Your task to perform on an android device: allow cookies in the chrome app Image 0: 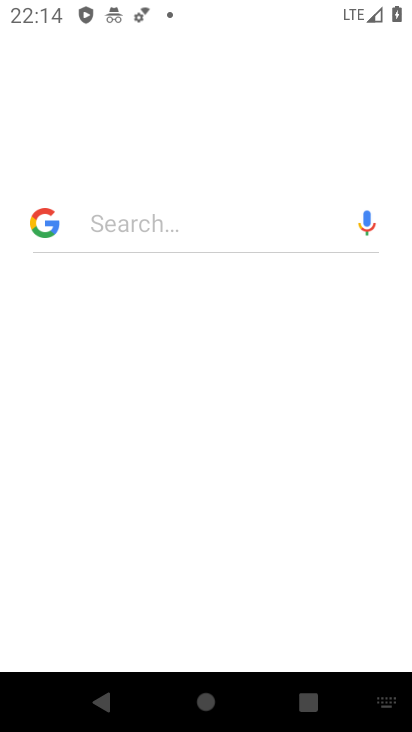
Step 0: drag from (250, 586) to (237, 80)
Your task to perform on an android device: allow cookies in the chrome app Image 1: 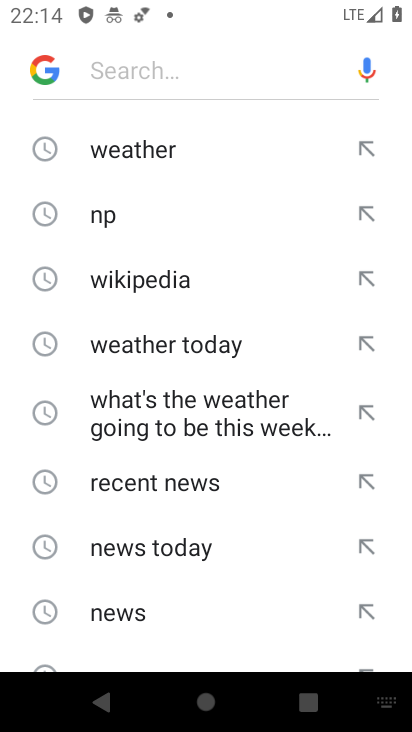
Step 1: press home button
Your task to perform on an android device: allow cookies in the chrome app Image 2: 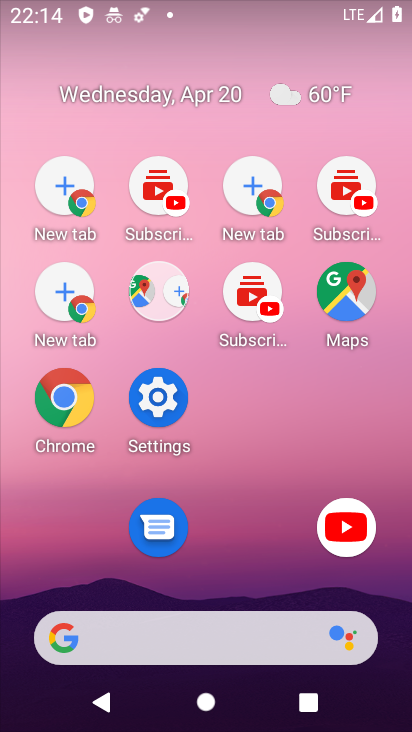
Step 2: drag from (211, 291) to (185, 155)
Your task to perform on an android device: allow cookies in the chrome app Image 3: 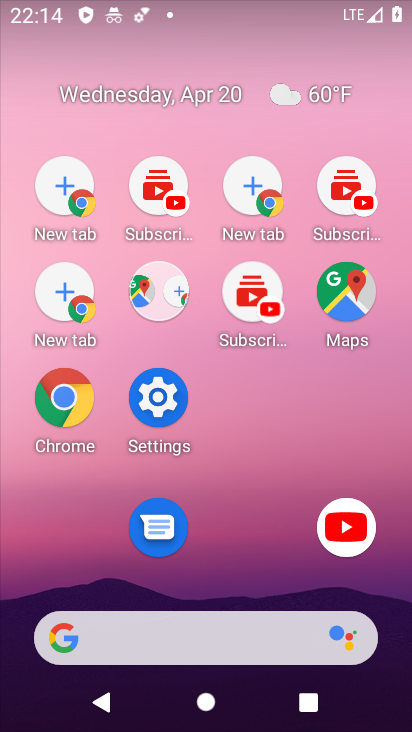
Step 3: drag from (265, 421) to (185, 118)
Your task to perform on an android device: allow cookies in the chrome app Image 4: 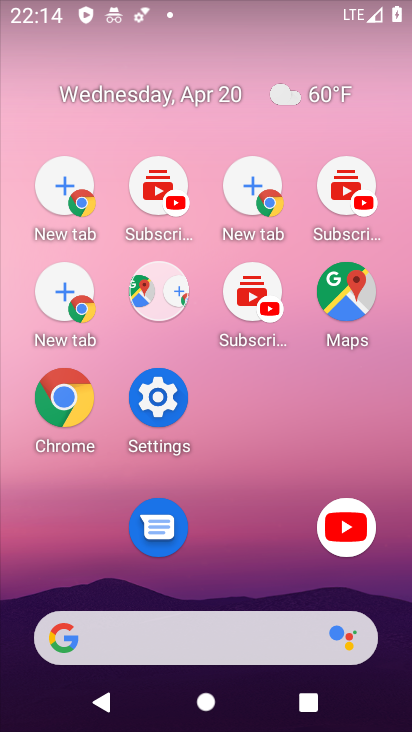
Step 4: drag from (235, 297) to (135, 15)
Your task to perform on an android device: allow cookies in the chrome app Image 5: 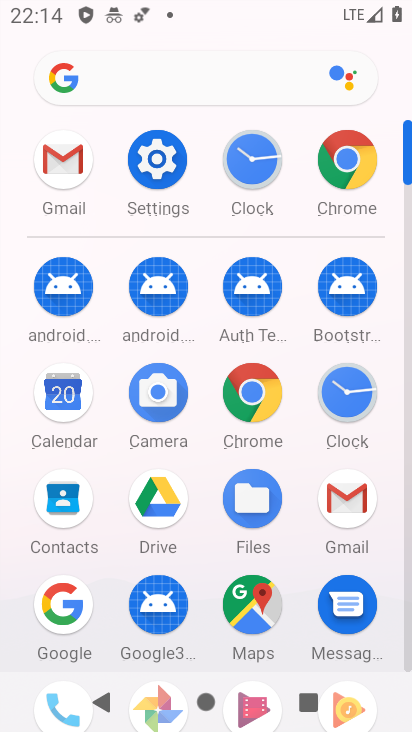
Step 5: drag from (225, 21) to (182, 50)
Your task to perform on an android device: allow cookies in the chrome app Image 6: 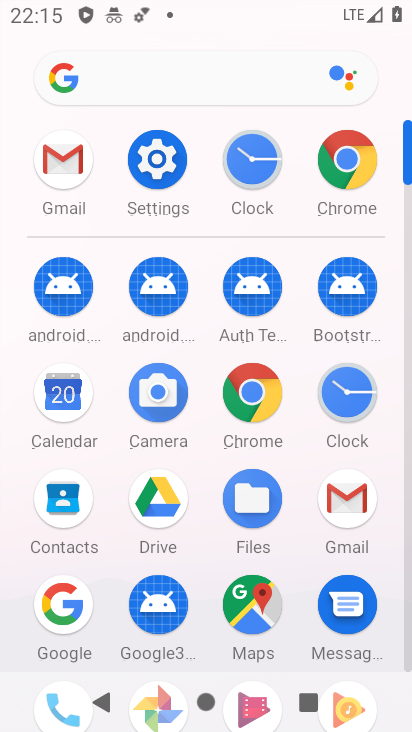
Step 6: click (347, 152)
Your task to perform on an android device: allow cookies in the chrome app Image 7: 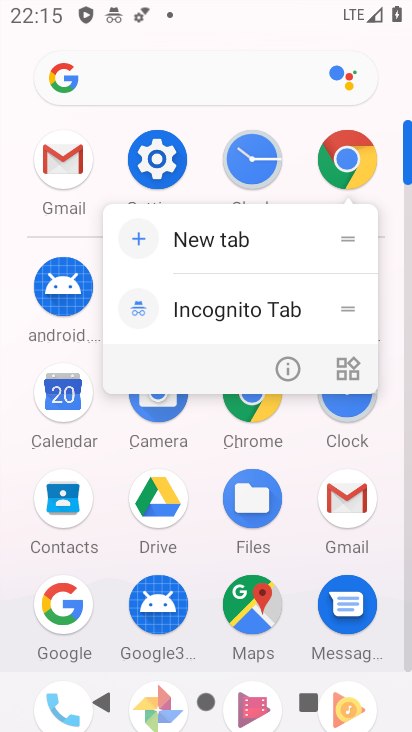
Step 7: click (348, 156)
Your task to perform on an android device: allow cookies in the chrome app Image 8: 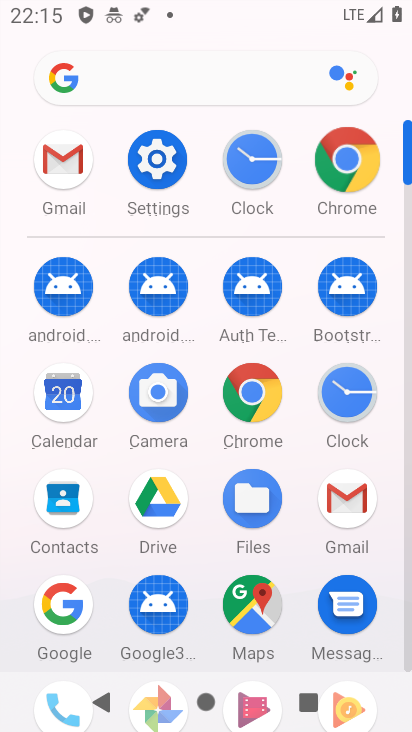
Step 8: click (348, 157)
Your task to perform on an android device: allow cookies in the chrome app Image 9: 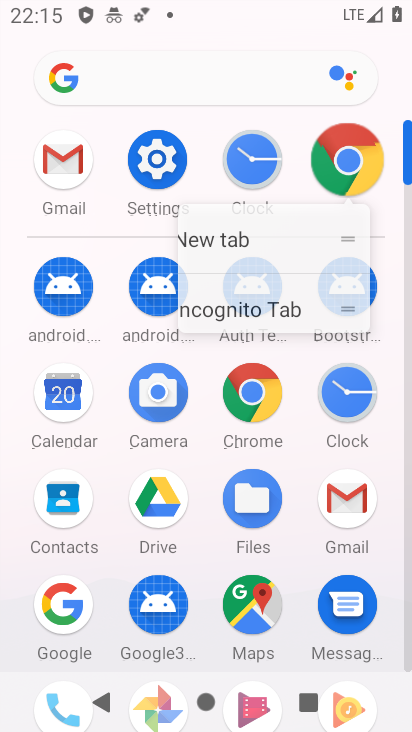
Step 9: click (338, 162)
Your task to perform on an android device: allow cookies in the chrome app Image 10: 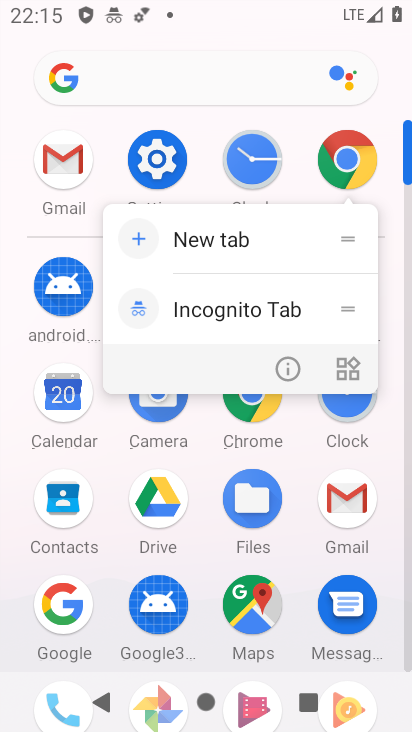
Step 10: click (338, 162)
Your task to perform on an android device: allow cookies in the chrome app Image 11: 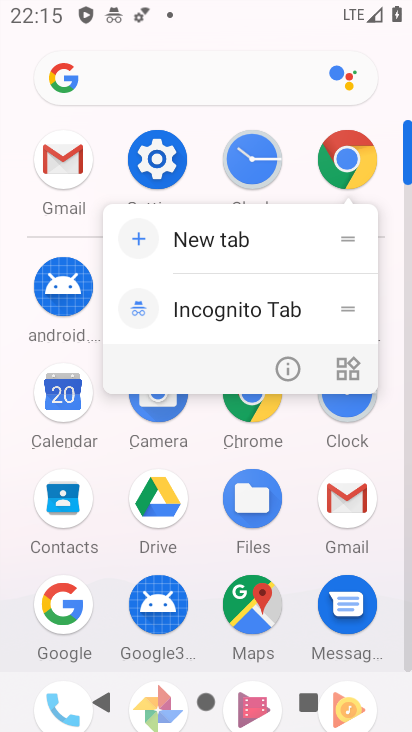
Step 11: click (340, 157)
Your task to perform on an android device: allow cookies in the chrome app Image 12: 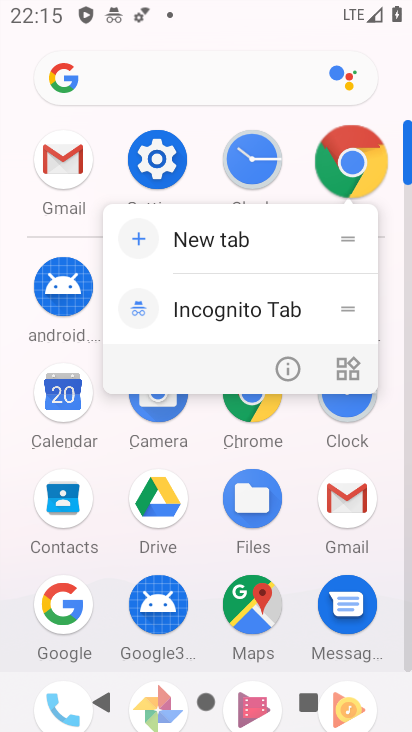
Step 12: click (344, 159)
Your task to perform on an android device: allow cookies in the chrome app Image 13: 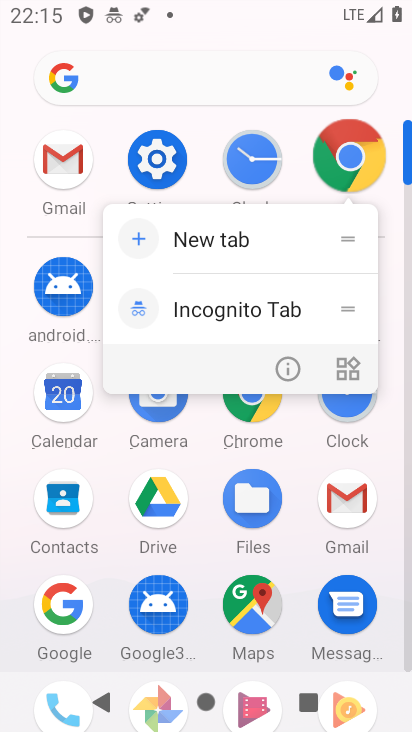
Step 13: click (345, 154)
Your task to perform on an android device: allow cookies in the chrome app Image 14: 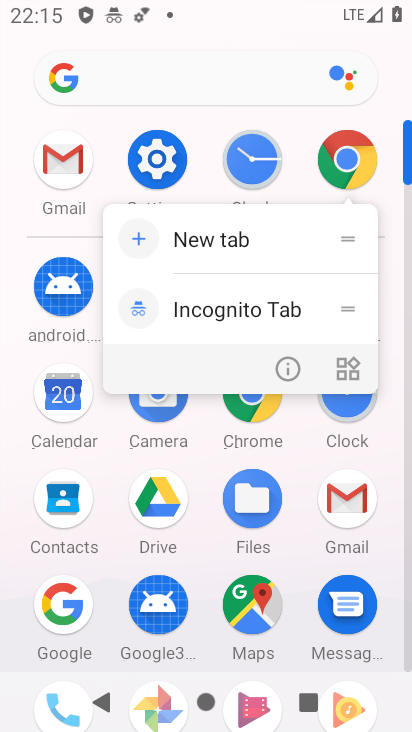
Step 14: click (358, 169)
Your task to perform on an android device: allow cookies in the chrome app Image 15: 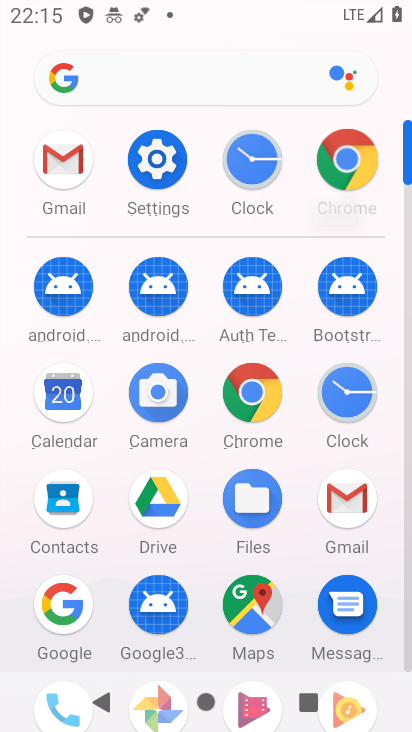
Step 15: click (359, 169)
Your task to perform on an android device: allow cookies in the chrome app Image 16: 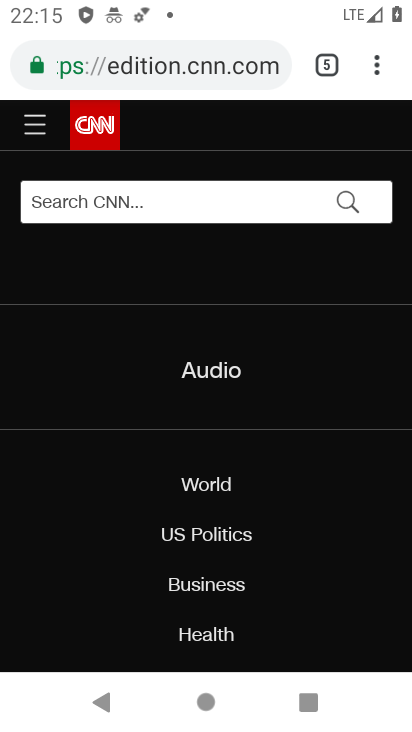
Step 16: drag from (378, 67) to (160, 575)
Your task to perform on an android device: allow cookies in the chrome app Image 17: 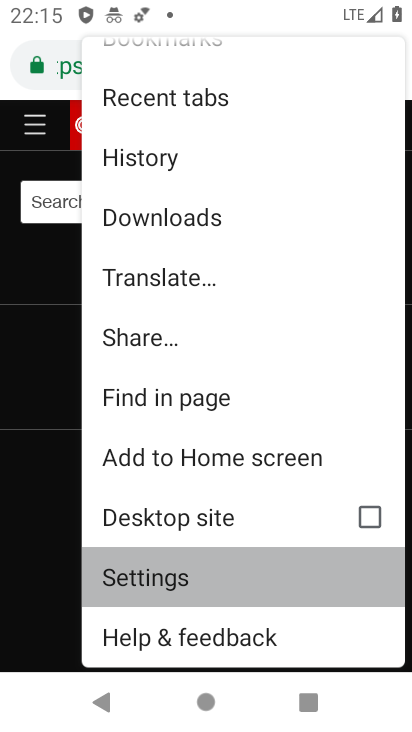
Step 17: click (160, 575)
Your task to perform on an android device: allow cookies in the chrome app Image 18: 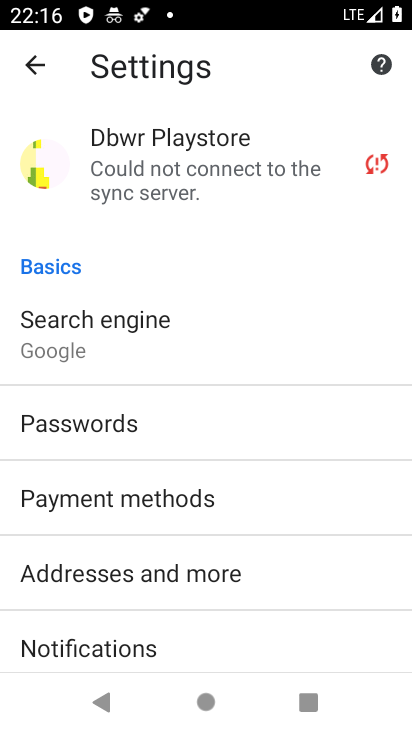
Step 18: drag from (149, 542) to (135, 212)
Your task to perform on an android device: allow cookies in the chrome app Image 19: 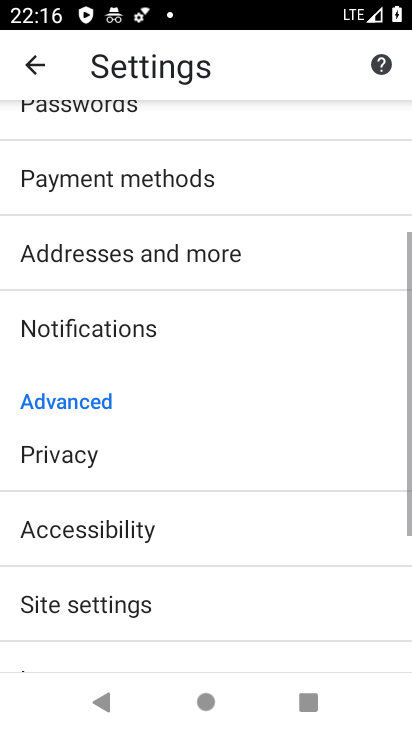
Step 19: drag from (252, 382) to (243, 101)
Your task to perform on an android device: allow cookies in the chrome app Image 20: 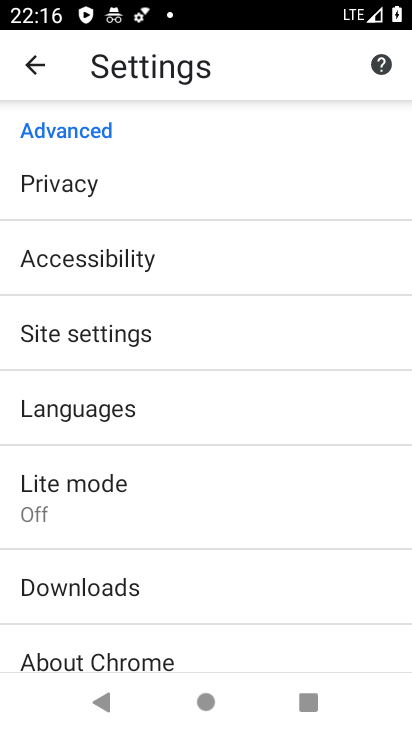
Step 20: click (97, 326)
Your task to perform on an android device: allow cookies in the chrome app Image 21: 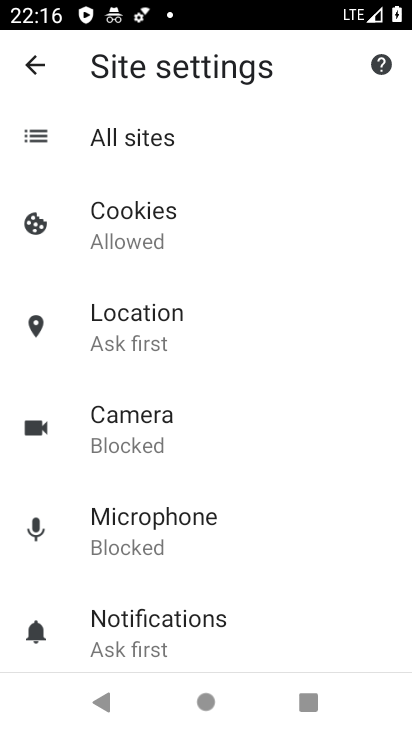
Step 21: click (149, 231)
Your task to perform on an android device: allow cookies in the chrome app Image 22: 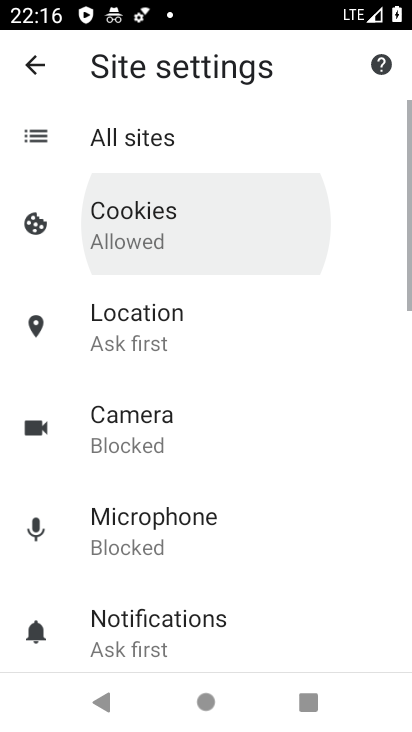
Step 22: click (150, 231)
Your task to perform on an android device: allow cookies in the chrome app Image 23: 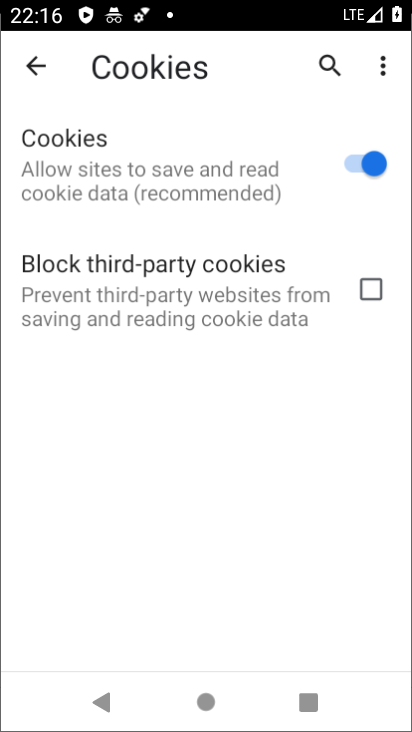
Step 23: click (151, 231)
Your task to perform on an android device: allow cookies in the chrome app Image 24: 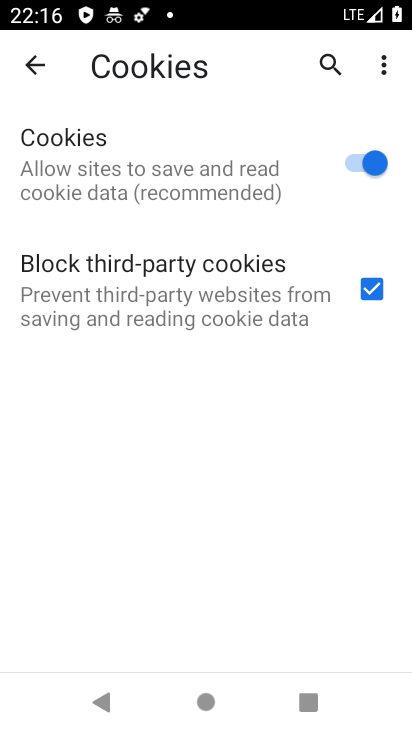
Step 24: task complete